Your task to perform on an android device: Search for "bose soundsport free" on ebay.com, select the first entry, and add it to the cart. Image 0: 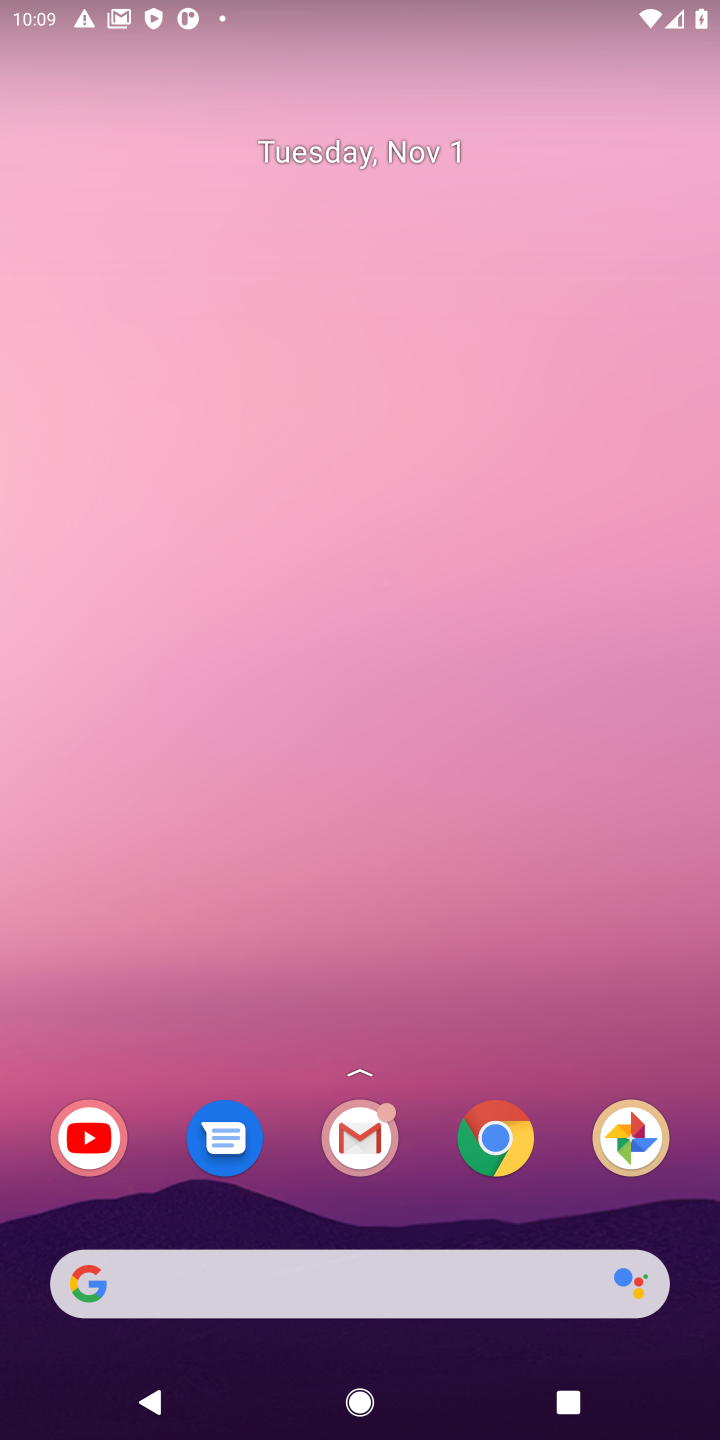
Step 0: click (501, 1141)
Your task to perform on an android device: Search for "bose soundsport free" on ebay.com, select the first entry, and add it to the cart. Image 1: 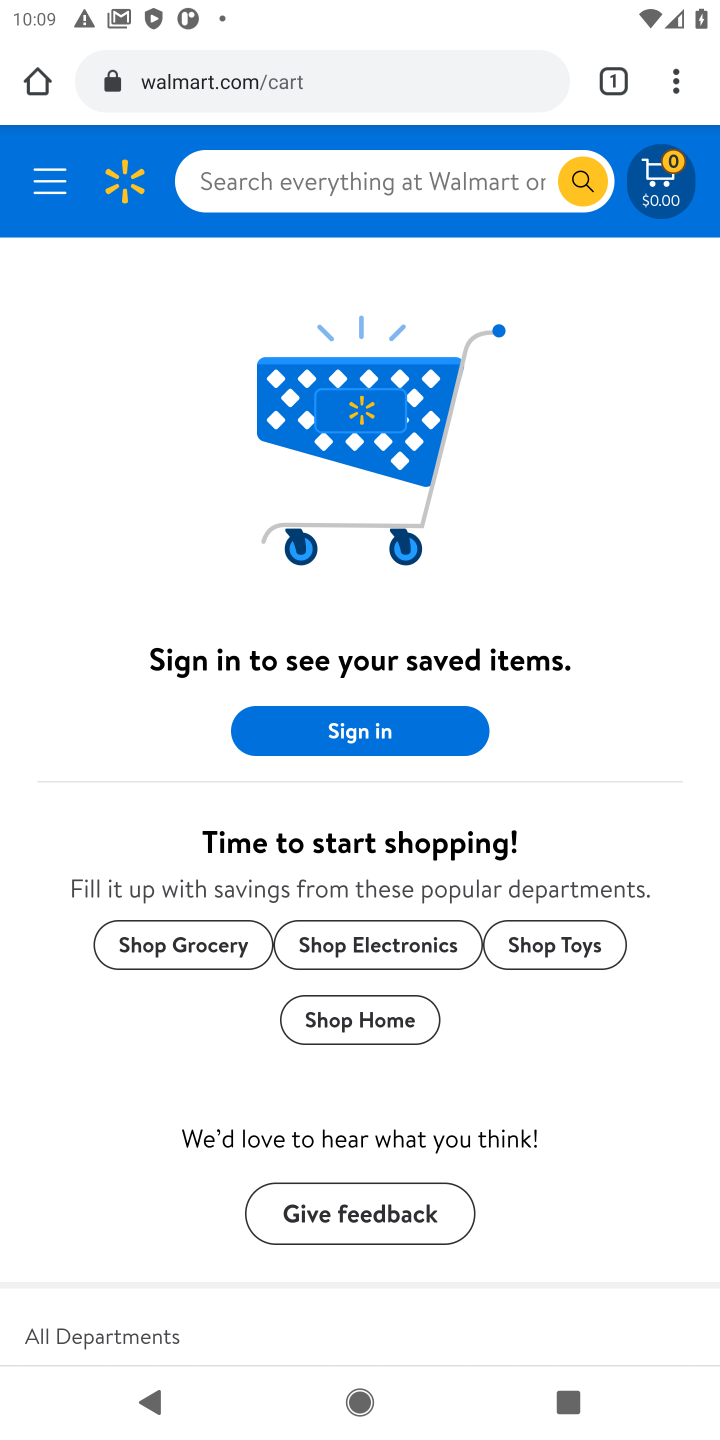
Step 1: click (166, 94)
Your task to perform on an android device: Search for "bose soundsport free" on ebay.com, select the first entry, and add it to the cart. Image 2: 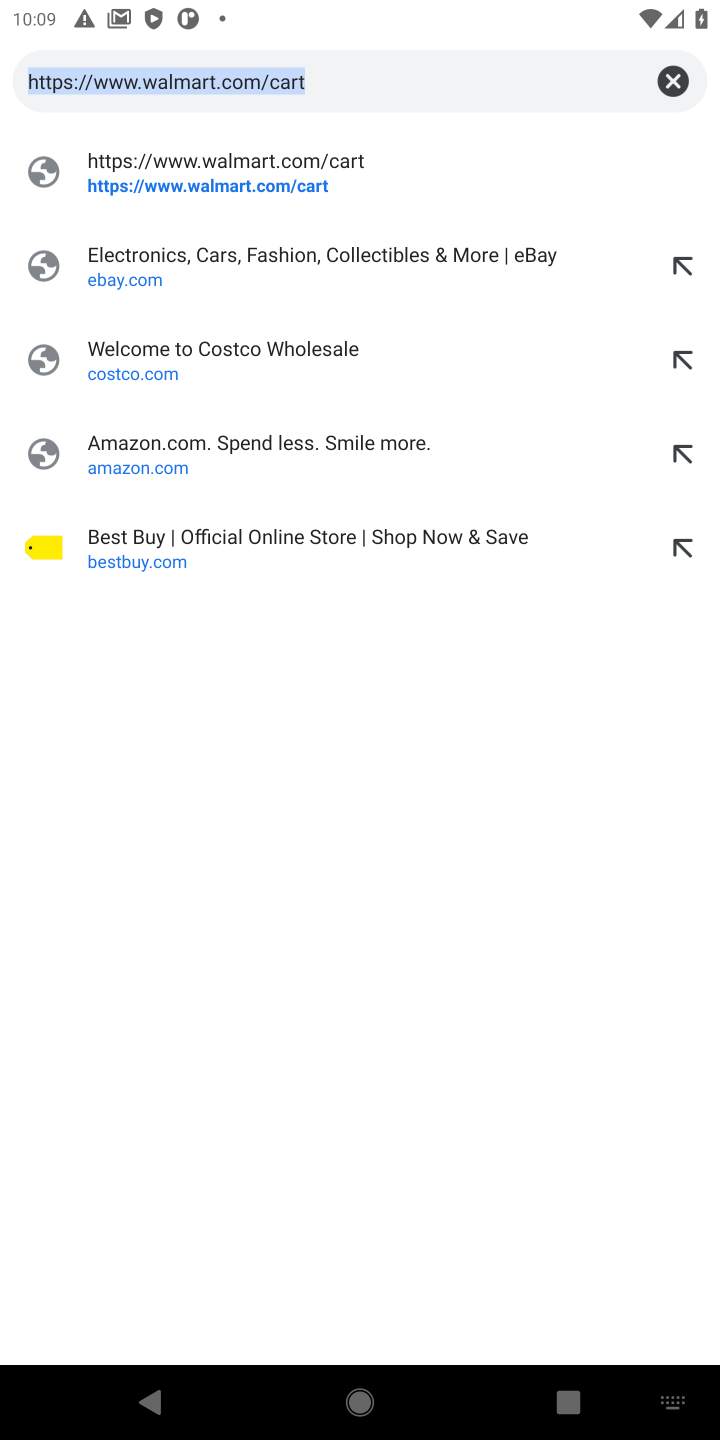
Step 2: click (126, 272)
Your task to perform on an android device: Search for "bose soundsport free" on ebay.com, select the first entry, and add it to the cart. Image 3: 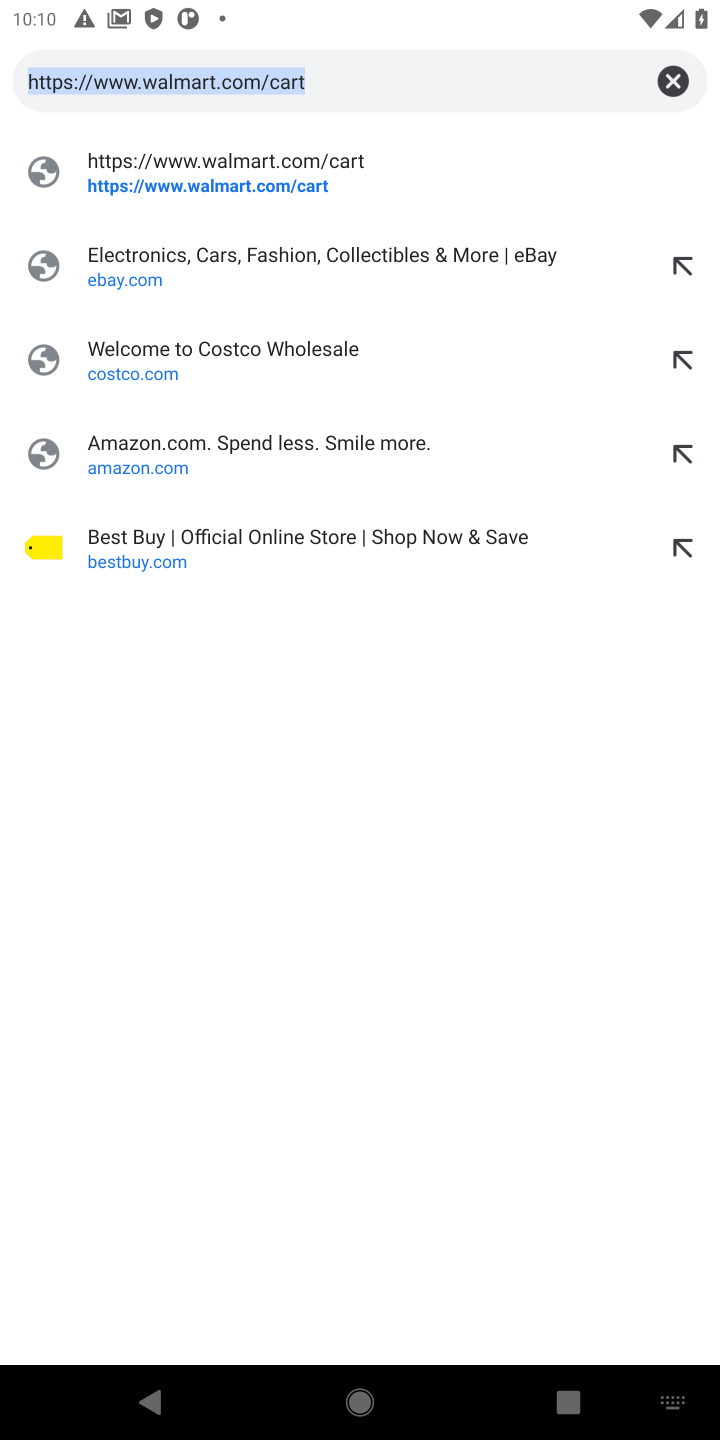
Step 3: click (124, 273)
Your task to perform on an android device: Search for "bose soundsport free" on ebay.com, select the first entry, and add it to the cart. Image 4: 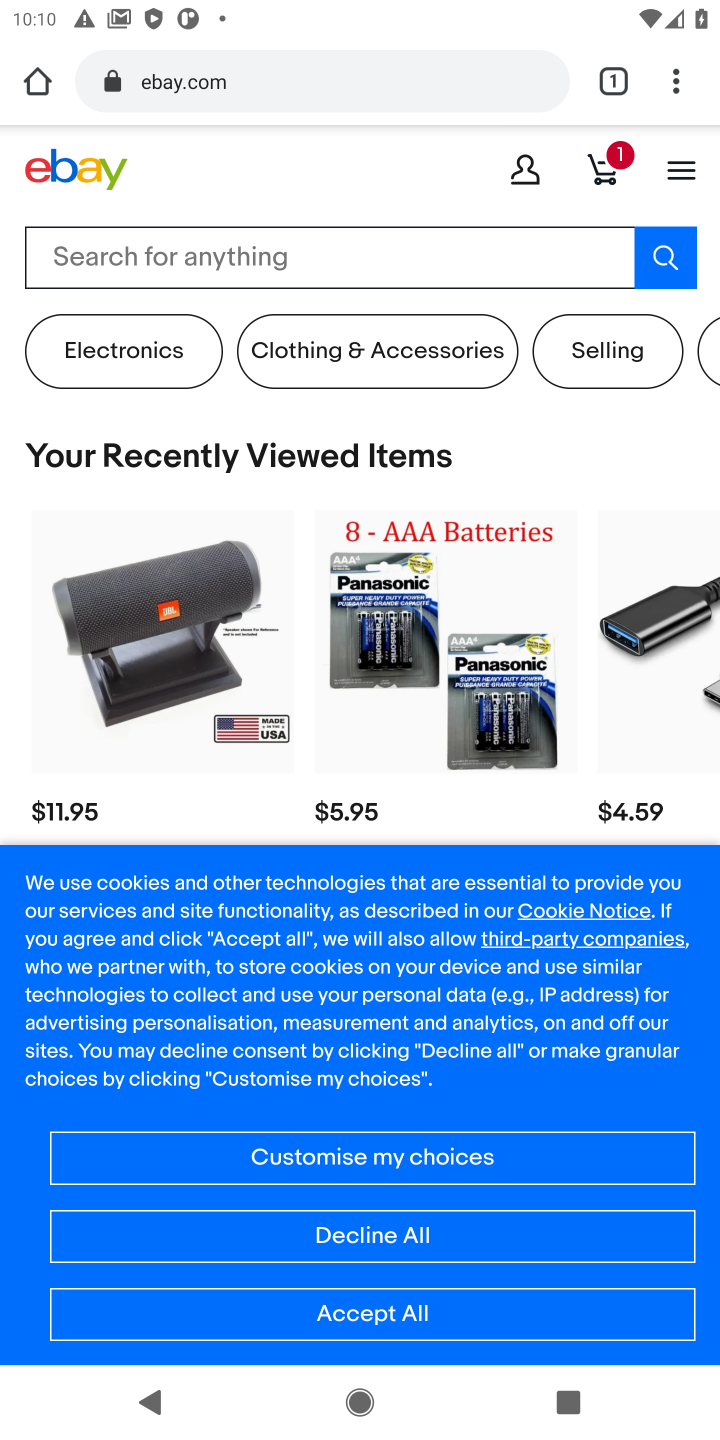
Step 4: click (309, 255)
Your task to perform on an android device: Search for "bose soundsport free" on ebay.com, select the first entry, and add it to the cart. Image 5: 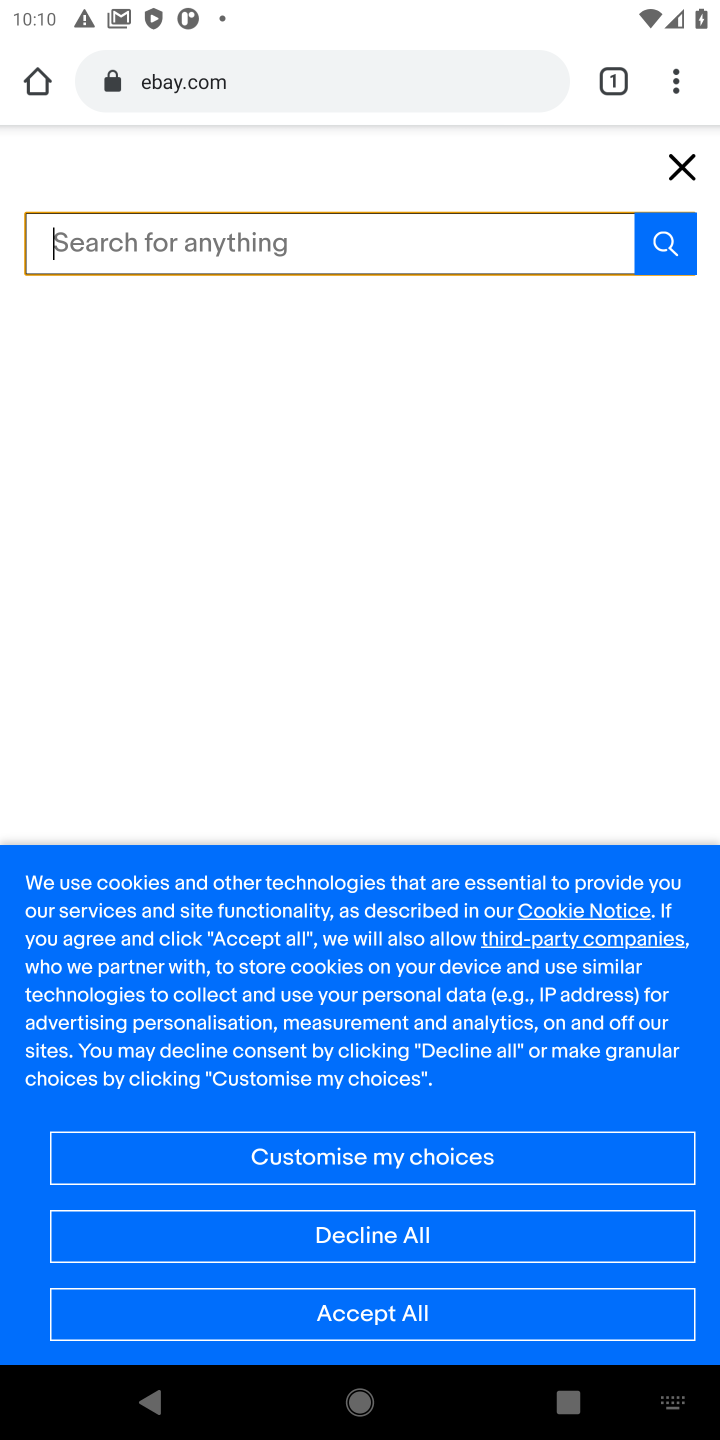
Step 5: type "bose soundsport free"
Your task to perform on an android device: Search for "bose soundsport free" on ebay.com, select the first entry, and add it to the cart. Image 6: 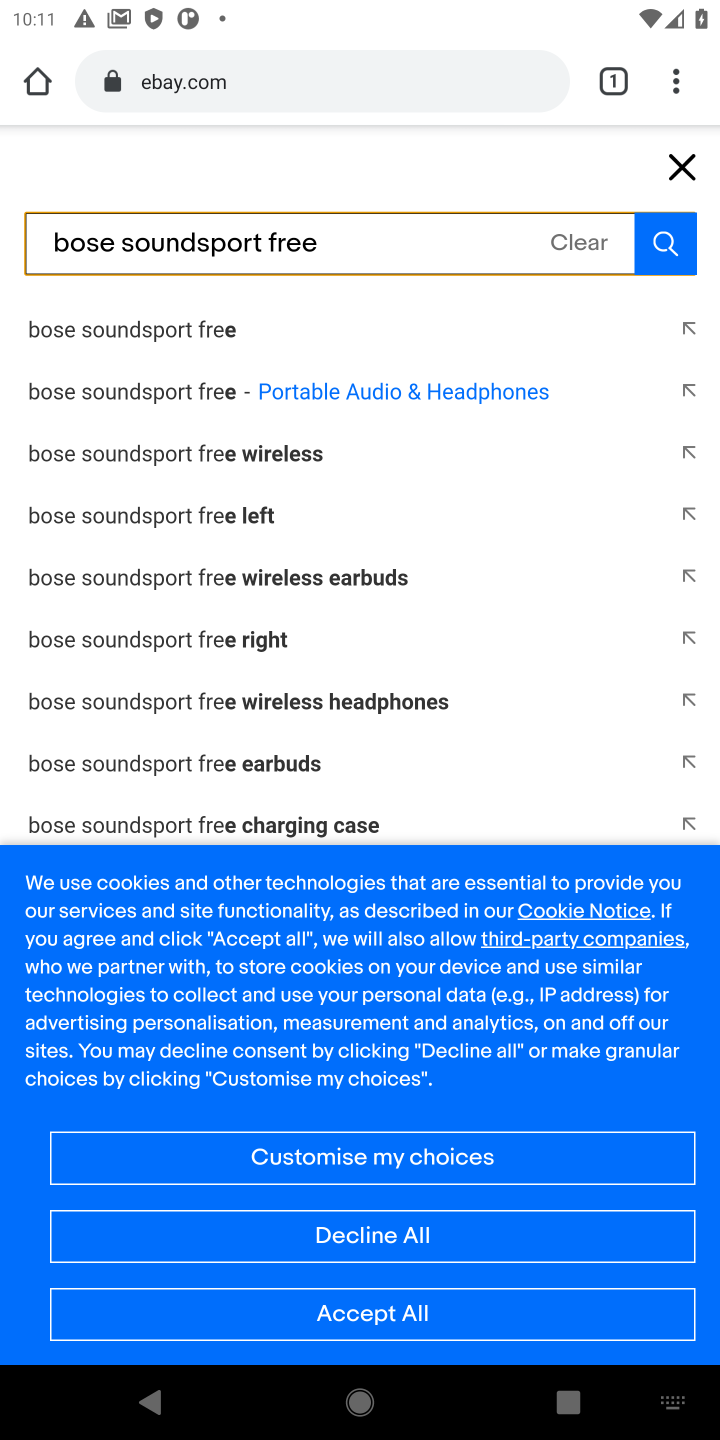
Step 6: click (93, 333)
Your task to perform on an android device: Search for "bose soundsport free" on ebay.com, select the first entry, and add it to the cart. Image 7: 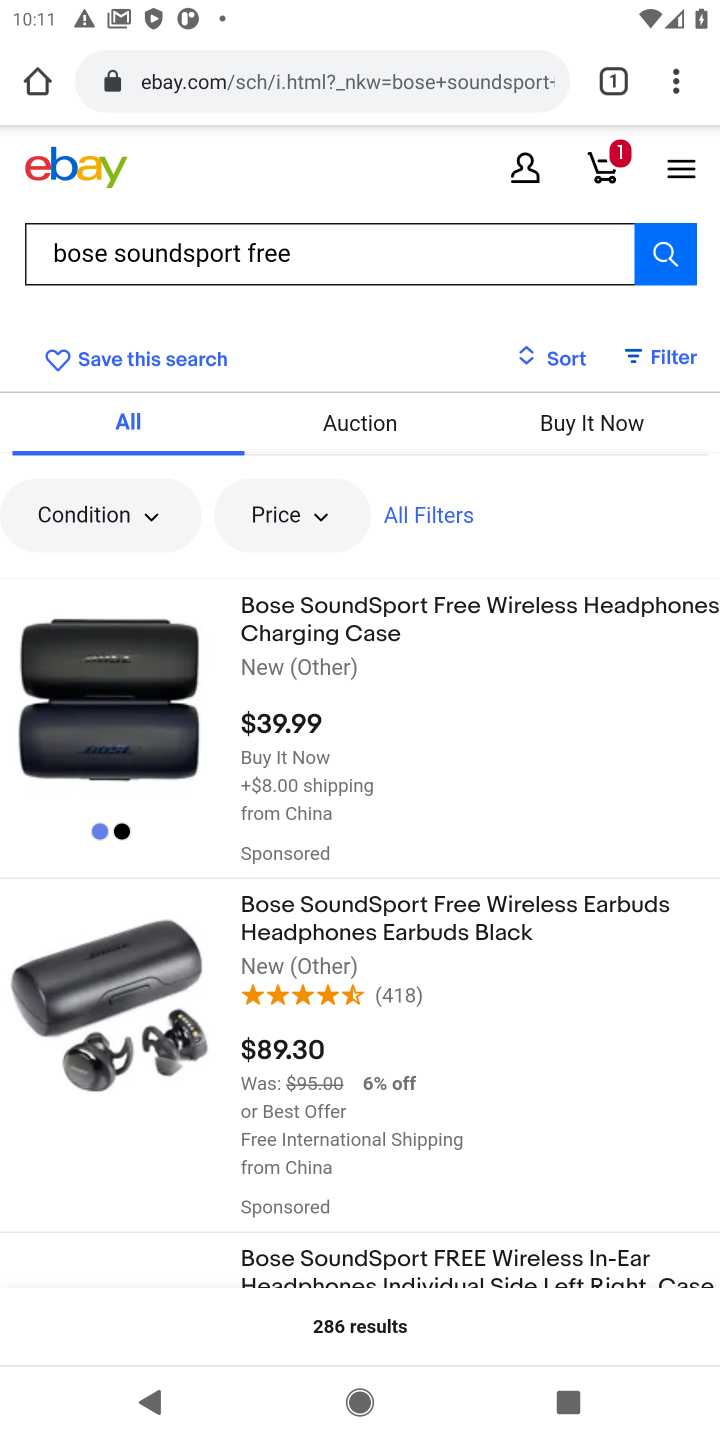
Step 7: click (271, 620)
Your task to perform on an android device: Search for "bose soundsport free" on ebay.com, select the first entry, and add it to the cart. Image 8: 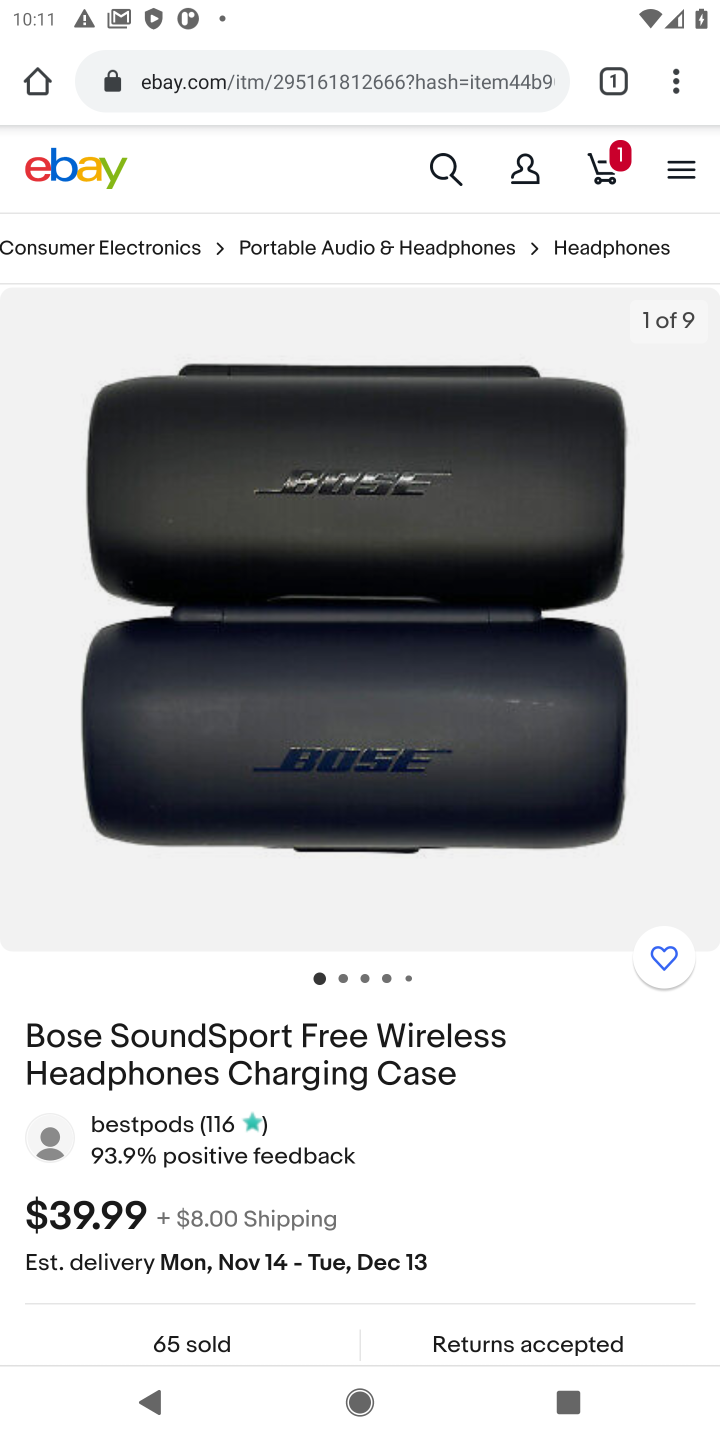
Step 8: drag from (313, 1035) to (363, 313)
Your task to perform on an android device: Search for "bose soundsport free" on ebay.com, select the first entry, and add it to the cart. Image 9: 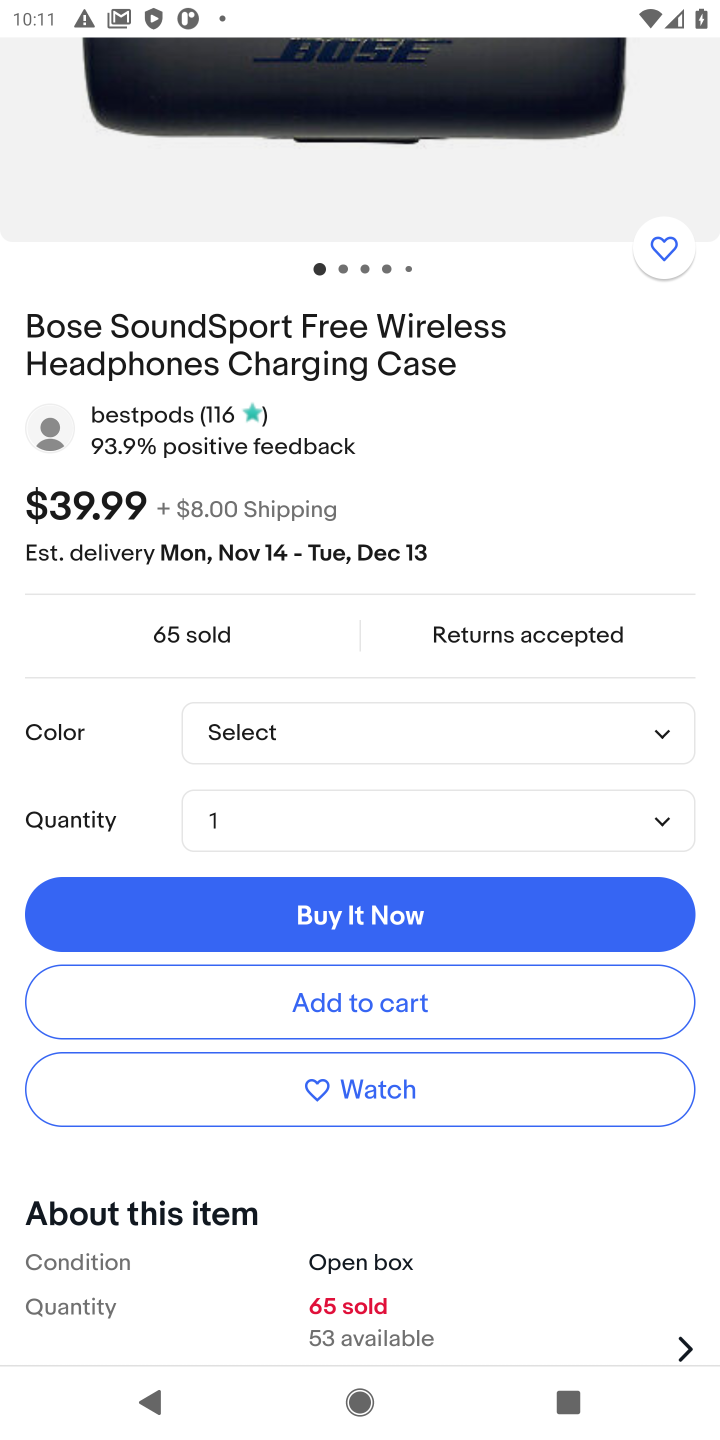
Step 9: click (353, 998)
Your task to perform on an android device: Search for "bose soundsport free" on ebay.com, select the first entry, and add it to the cart. Image 10: 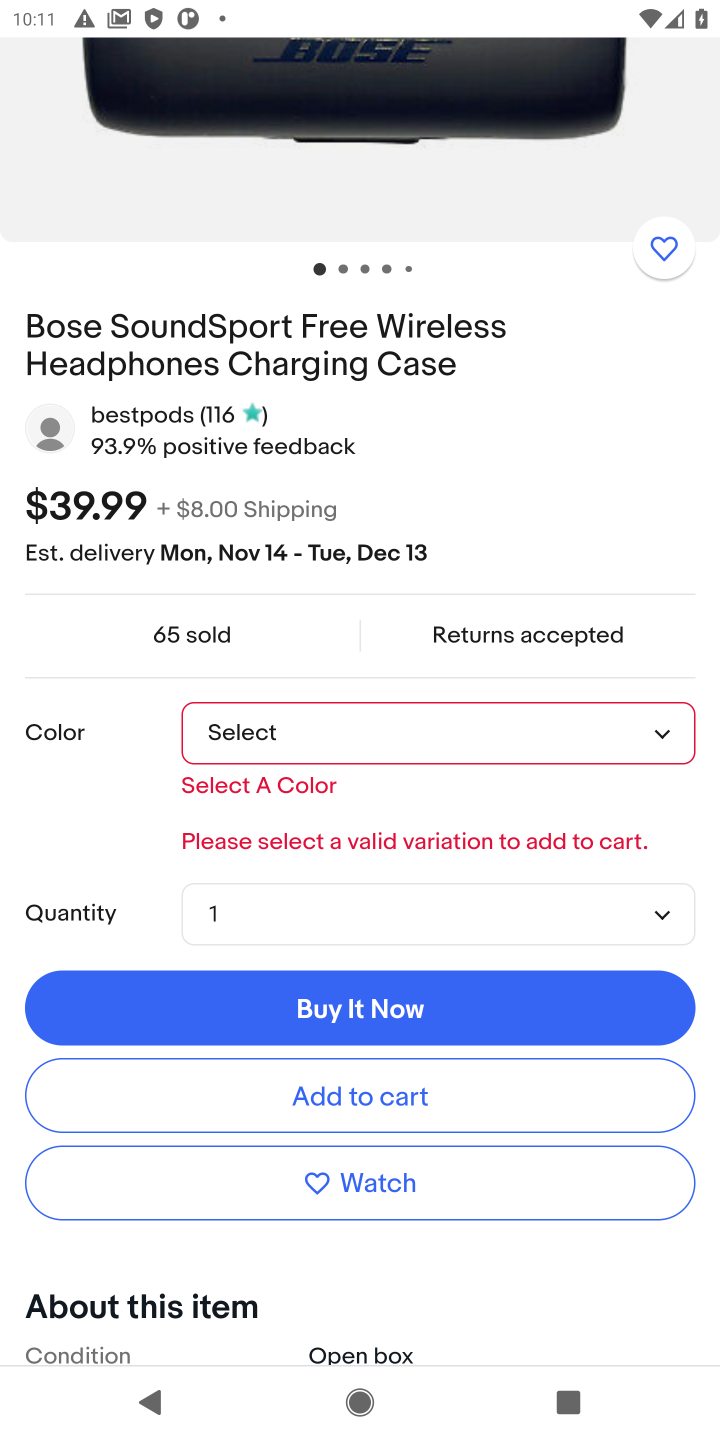
Step 10: click (674, 736)
Your task to perform on an android device: Search for "bose soundsport free" on ebay.com, select the first entry, and add it to the cart. Image 11: 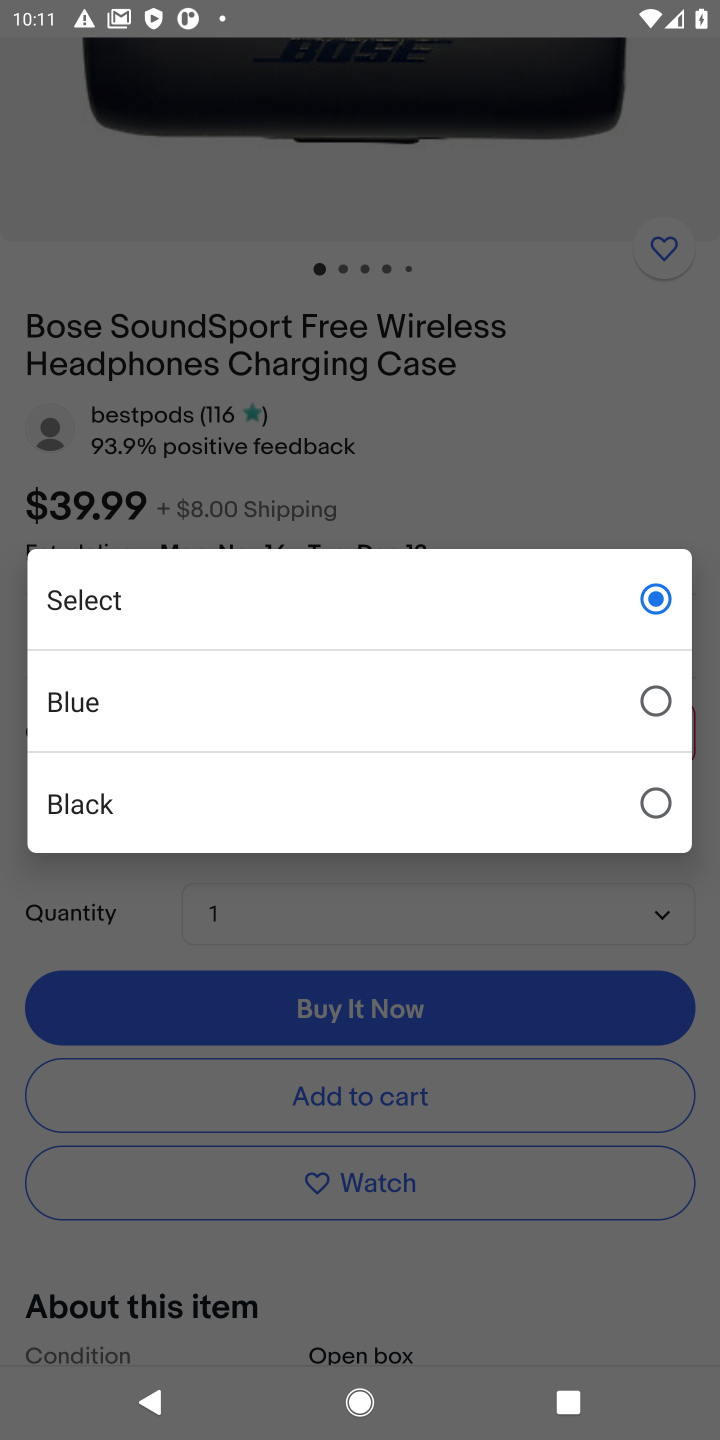
Step 11: click (74, 703)
Your task to perform on an android device: Search for "bose soundsport free" on ebay.com, select the first entry, and add it to the cart. Image 12: 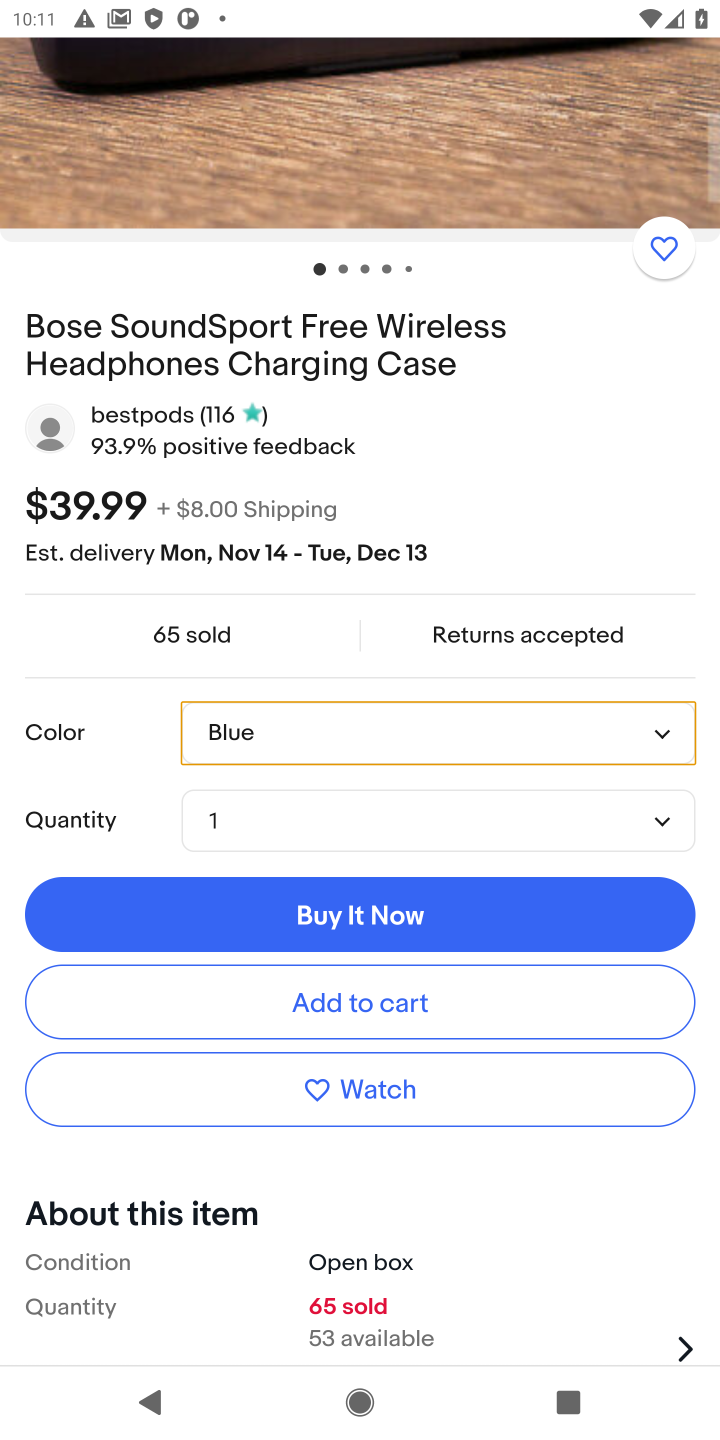
Step 12: click (352, 1000)
Your task to perform on an android device: Search for "bose soundsport free" on ebay.com, select the first entry, and add it to the cart. Image 13: 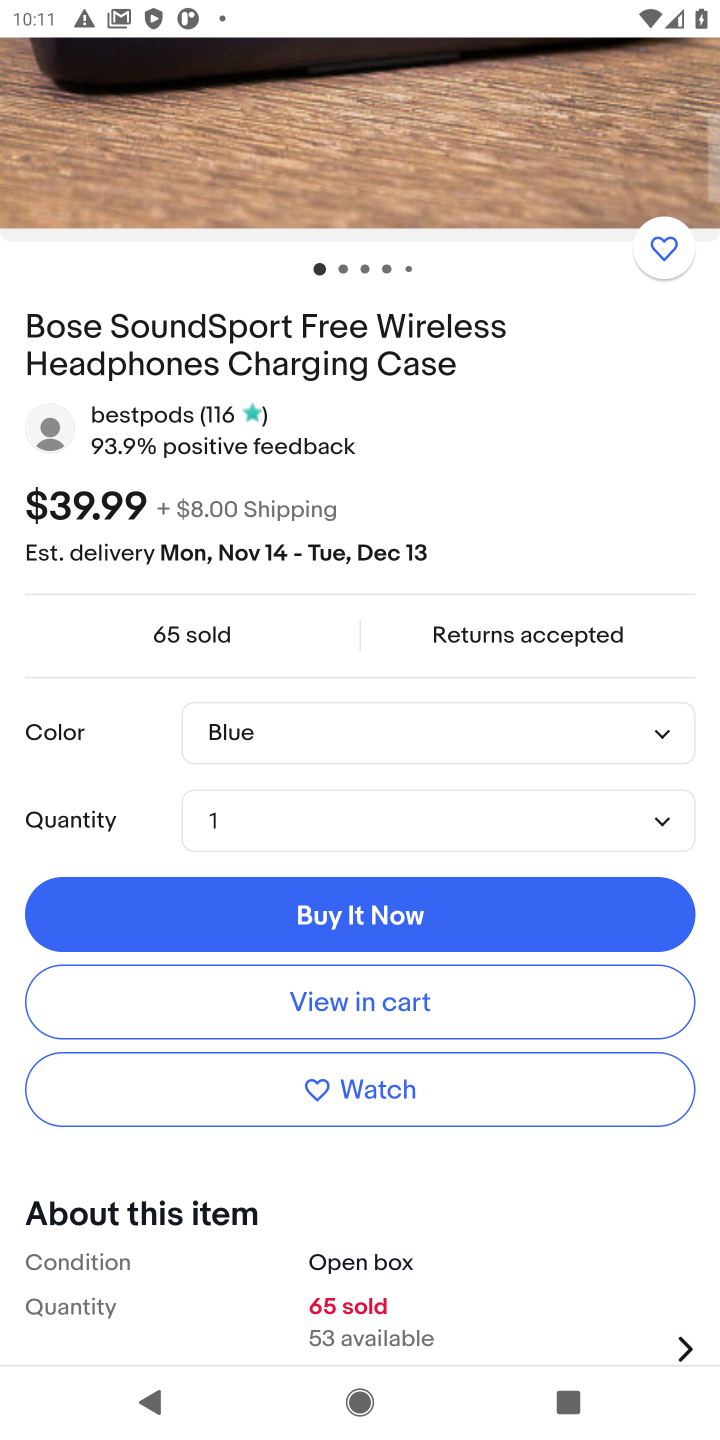
Step 13: task complete